Your task to perform on an android device: Open eBay Image 0: 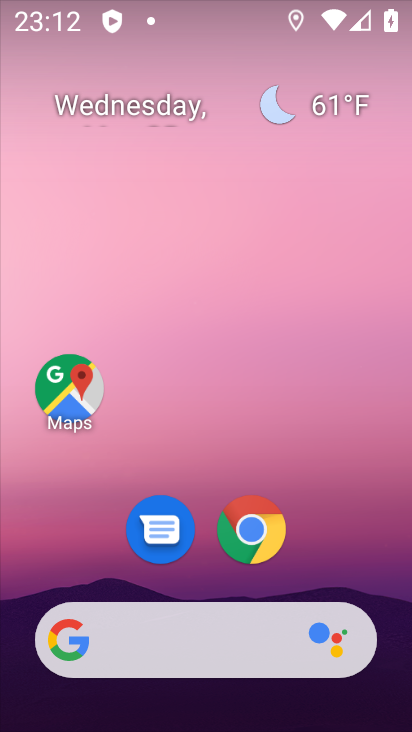
Step 0: drag from (363, 558) to (353, 170)
Your task to perform on an android device: Open eBay Image 1: 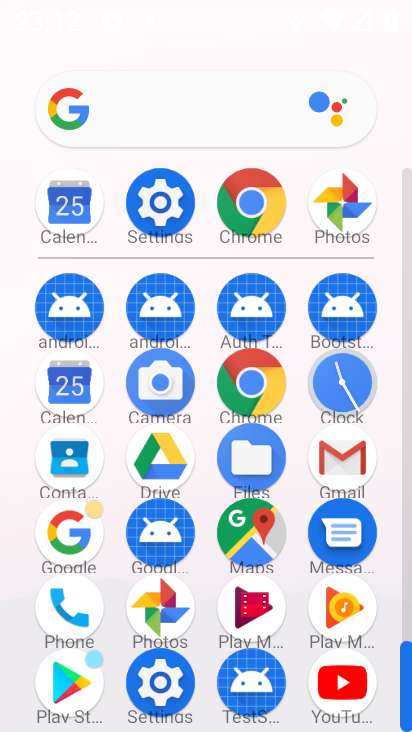
Step 1: click (265, 361)
Your task to perform on an android device: Open eBay Image 2: 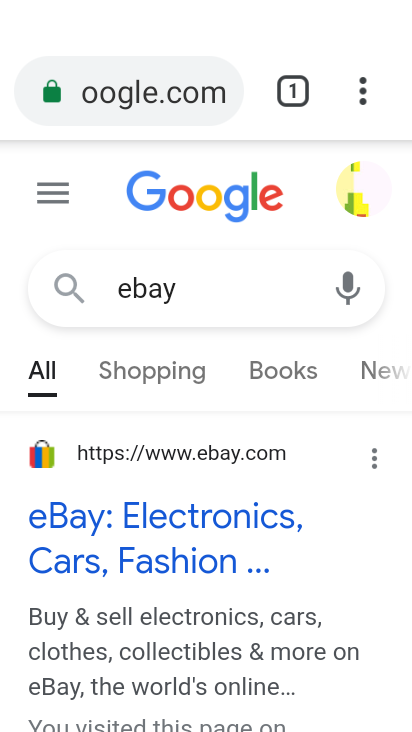
Step 2: task complete